Your task to perform on an android device: open wifi settings Image 0: 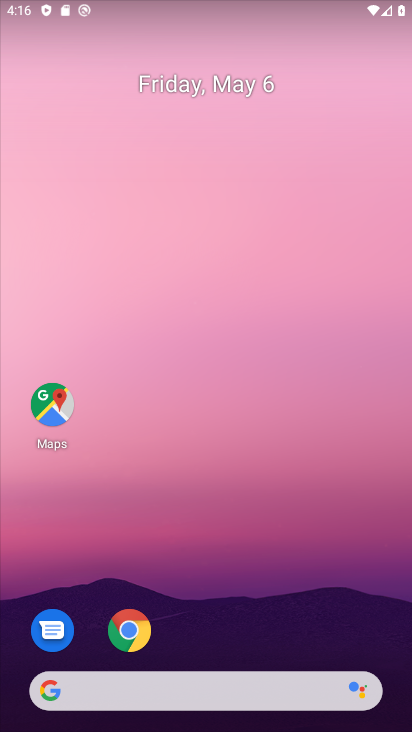
Step 0: drag from (220, 655) to (227, 115)
Your task to perform on an android device: open wifi settings Image 1: 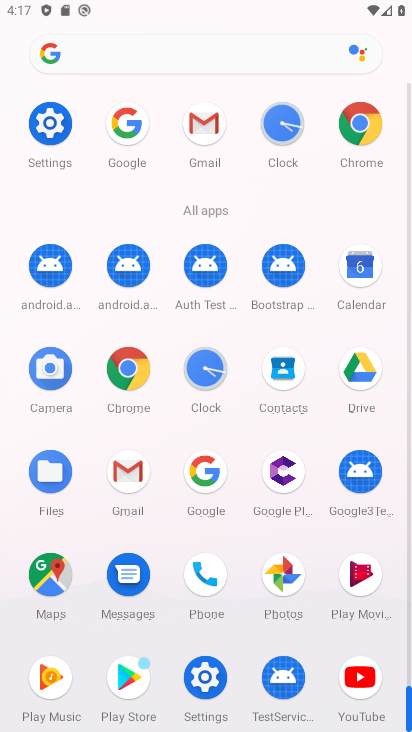
Step 1: click (50, 129)
Your task to perform on an android device: open wifi settings Image 2: 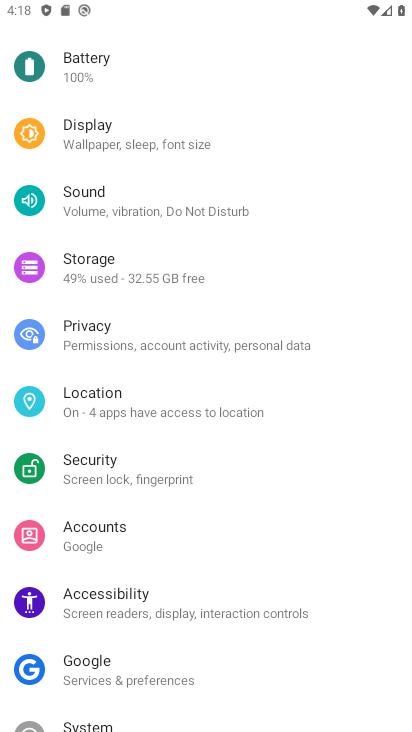
Step 2: drag from (107, 197) to (146, 657)
Your task to perform on an android device: open wifi settings Image 3: 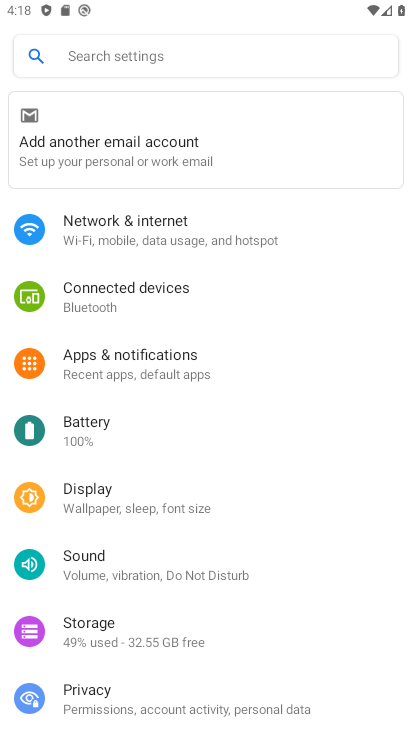
Step 3: click (143, 260)
Your task to perform on an android device: open wifi settings Image 4: 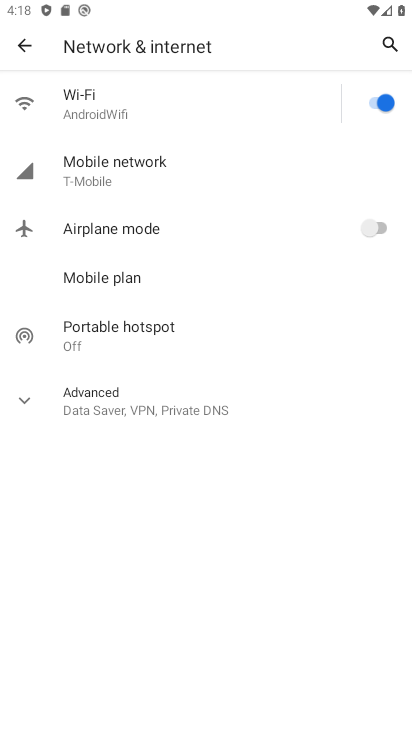
Step 4: click (146, 86)
Your task to perform on an android device: open wifi settings Image 5: 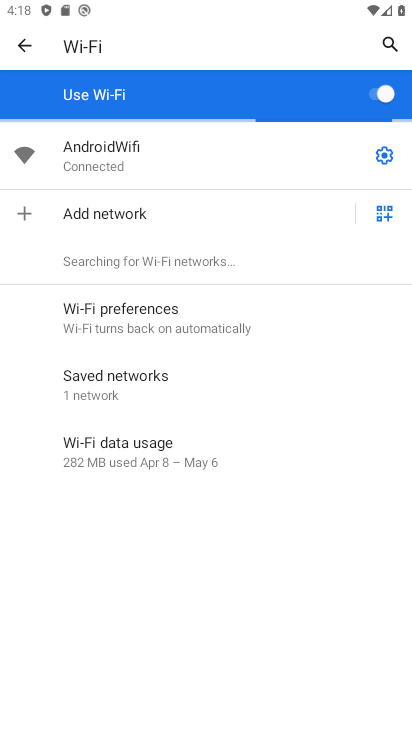
Step 5: task complete